Your task to perform on an android device: Do I have any events this weekend? Image 0: 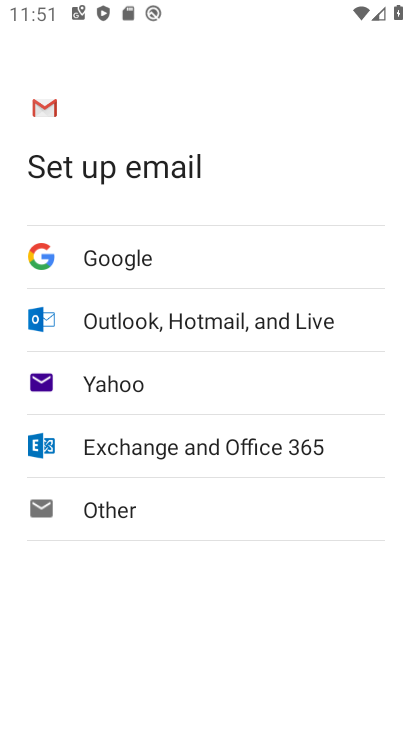
Step 0: press home button
Your task to perform on an android device: Do I have any events this weekend? Image 1: 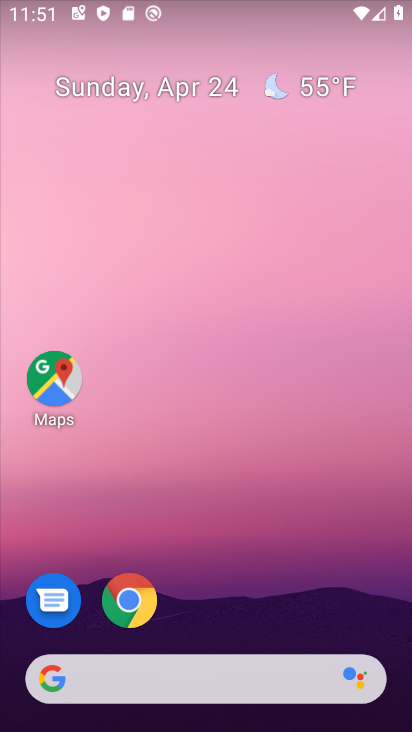
Step 1: click (157, 92)
Your task to perform on an android device: Do I have any events this weekend? Image 2: 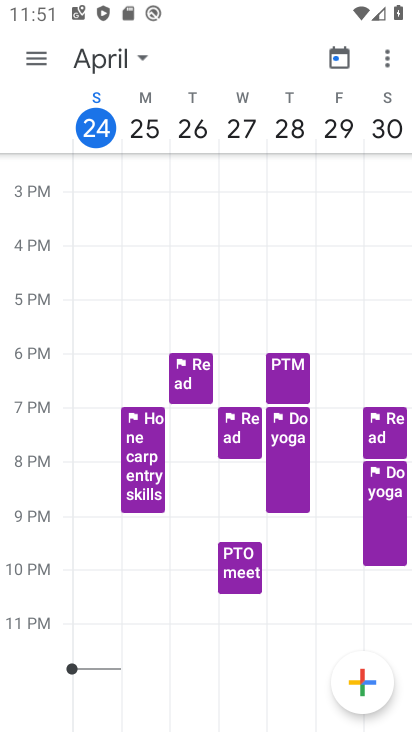
Step 2: click (384, 126)
Your task to perform on an android device: Do I have any events this weekend? Image 3: 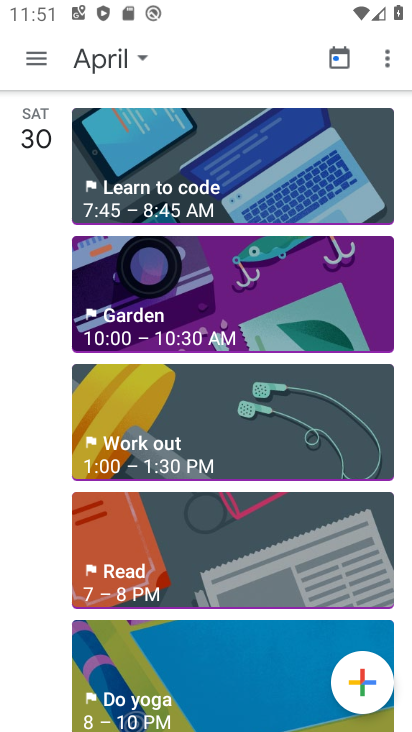
Step 3: click (304, 256)
Your task to perform on an android device: Do I have any events this weekend? Image 4: 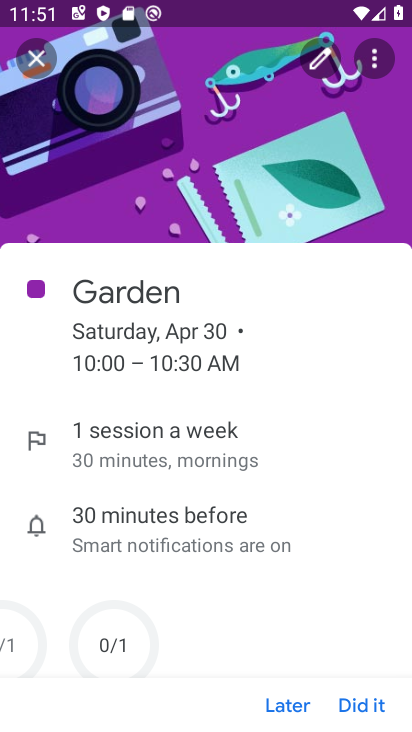
Step 4: task complete